Your task to perform on an android device: turn on javascript in the chrome app Image 0: 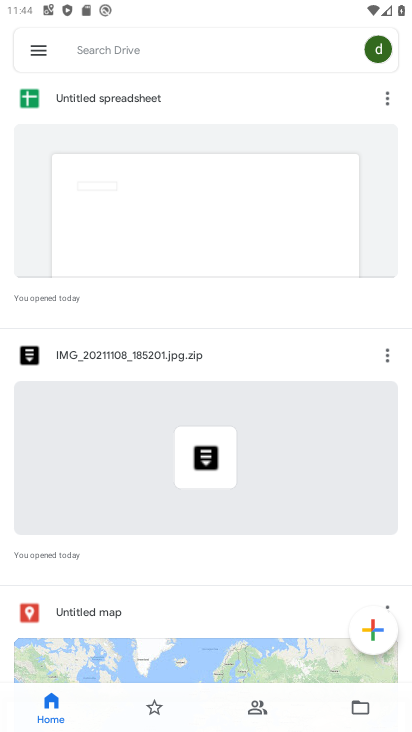
Step 0: press home button
Your task to perform on an android device: turn on javascript in the chrome app Image 1: 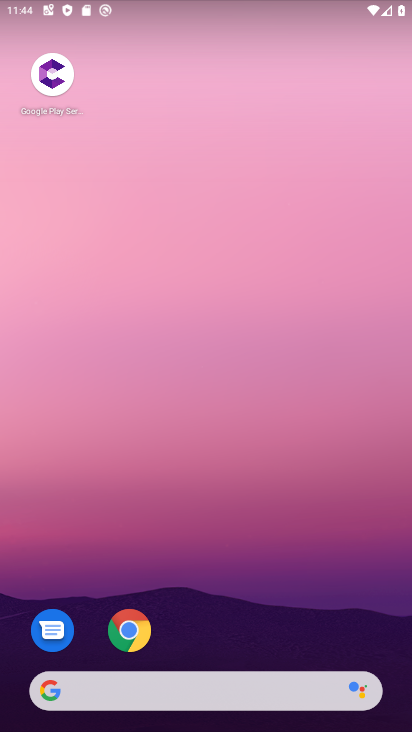
Step 1: click (135, 627)
Your task to perform on an android device: turn on javascript in the chrome app Image 2: 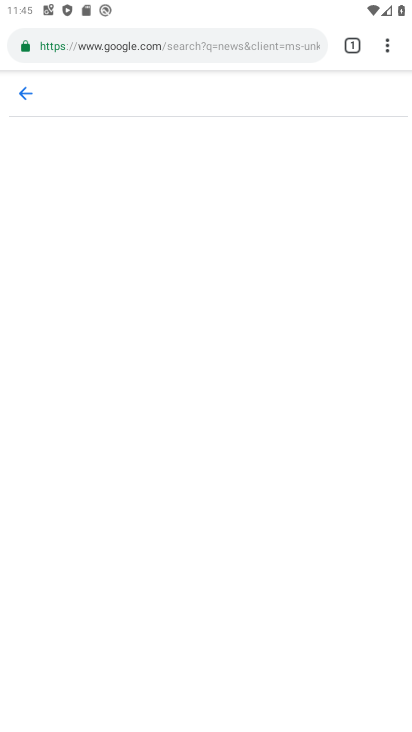
Step 2: drag from (392, 47) to (242, 511)
Your task to perform on an android device: turn on javascript in the chrome app Image 3: 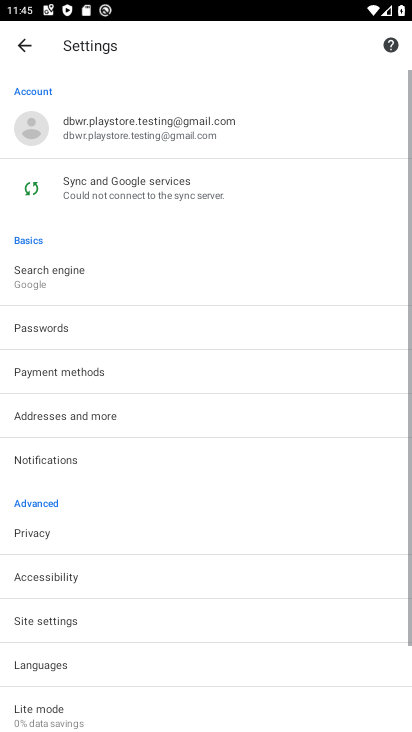
Step 3: drag from (209, 574) to (277, 265)
Your task to perform on an android device: turn on javascript in the chrome app Image 4: 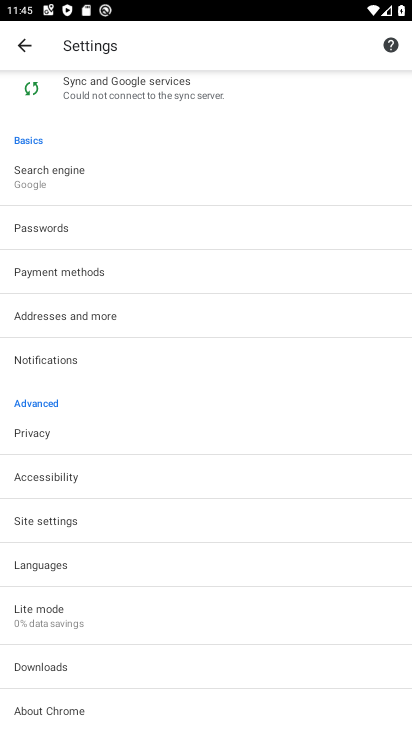
Step 4: click (64, 526)
Your task to perform on an android device: turn on javascript in the chrome app Image 5: 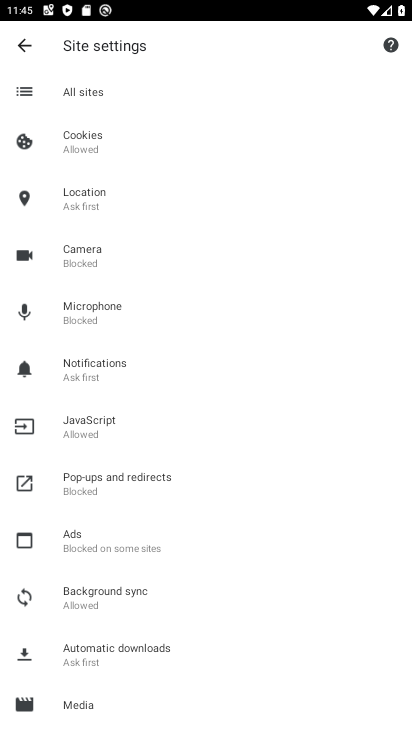
Step 5: click (150, 432)
Your task to perform on an android device: turn on javascript in the chrome app Image 6: 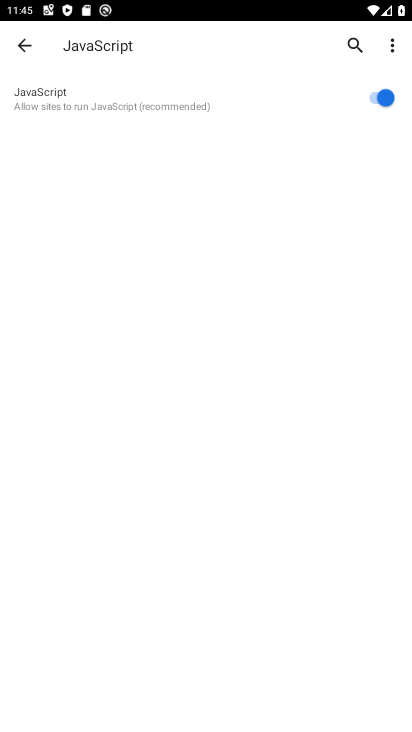
Step 6: task complete